Your task to perform on an android device: turn notification dots off Image 0: 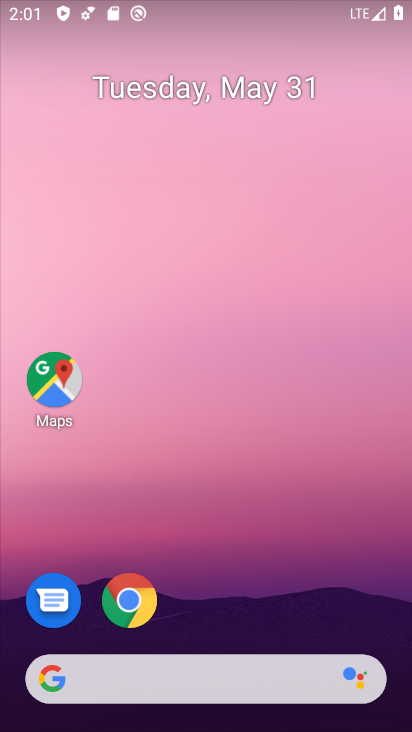
Step 0: drag from (212, 626) to (227, 88)
Your task to perform on an android device: turn notification dots off Image 1: 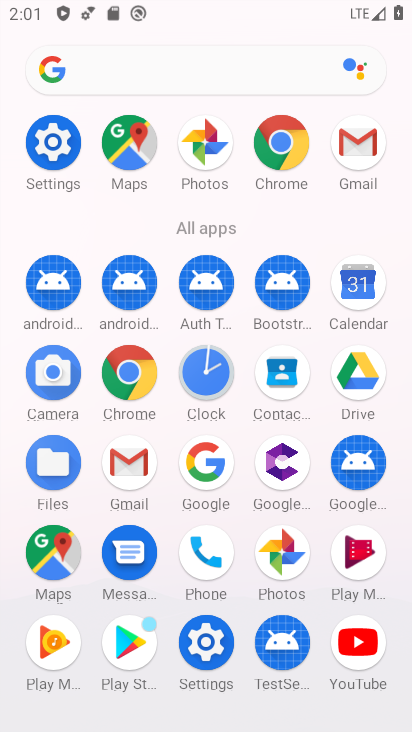
Step 1: click (203, 639)
Your task to perform on an android device: turn notification dots off Image 2: 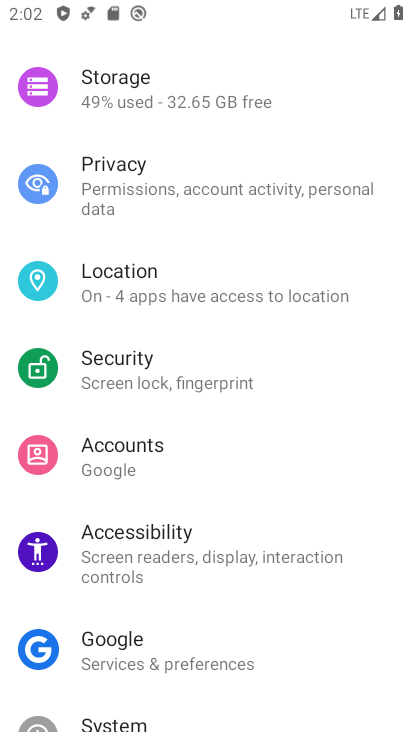
Step 2: drag from (175, 99) to (226, 714)
Your task to perform on an android device: turn notification dots off Image 3: 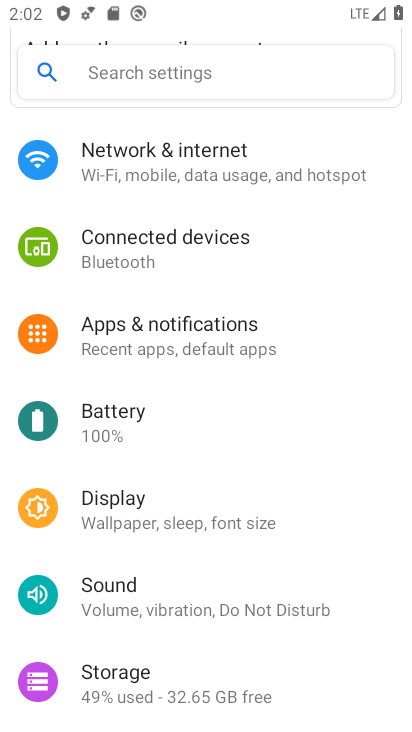
Step 3: click (247, 330)
Your task to perform on an android device: turn notification dots off Image 4: 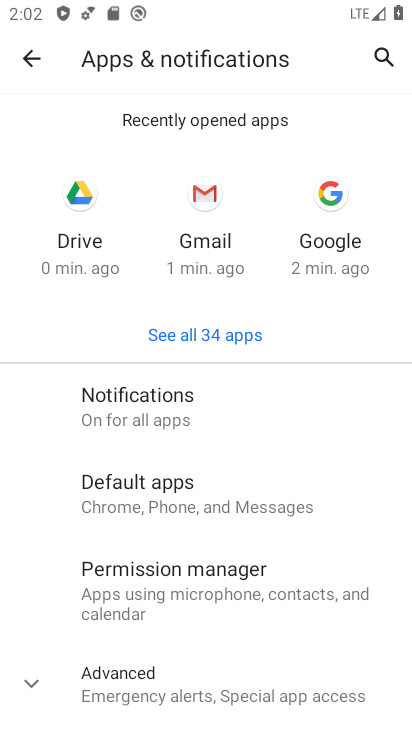
Step 4: click (202, 403)
Your task to perform on an android device: turn notification dots off Image 5: 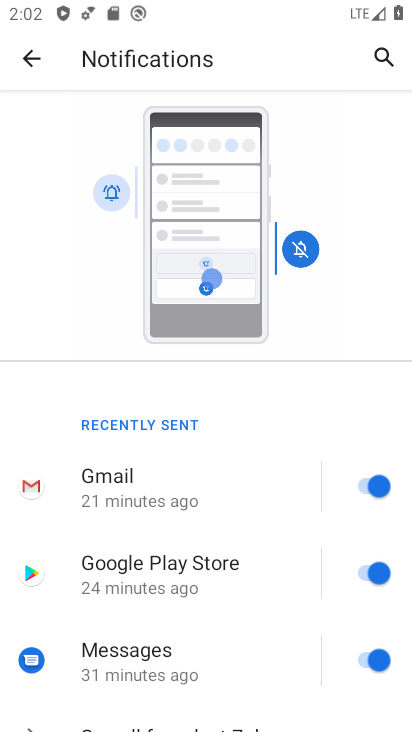
Step 5: drag from (244, 673) to (250, 81)
Your task to perform on an android device: turn notification dots off Image 6: 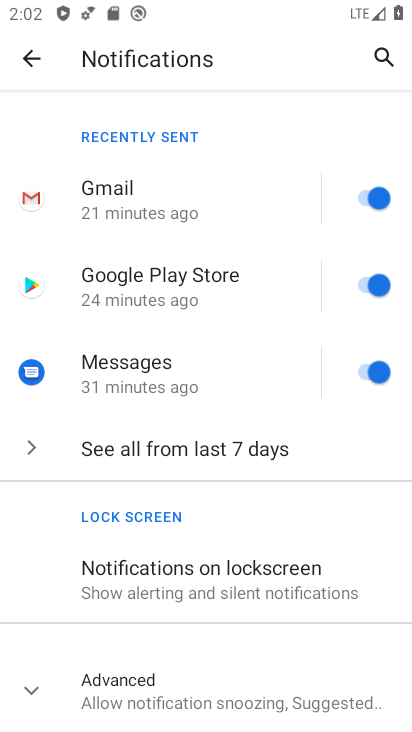
Step 6: click (44, 695)
Your task to perform on an android device: turn notification dots off Image 7: 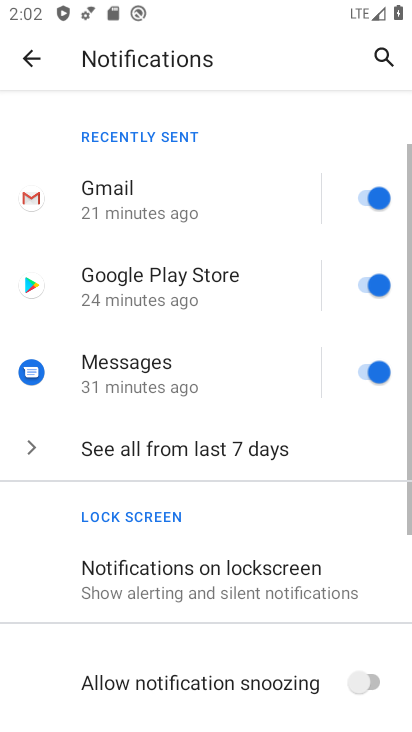
Step 7: drag from (219, 683) to (247, 117)
Your task to perform on an android device: turn notification dots off Image 8: 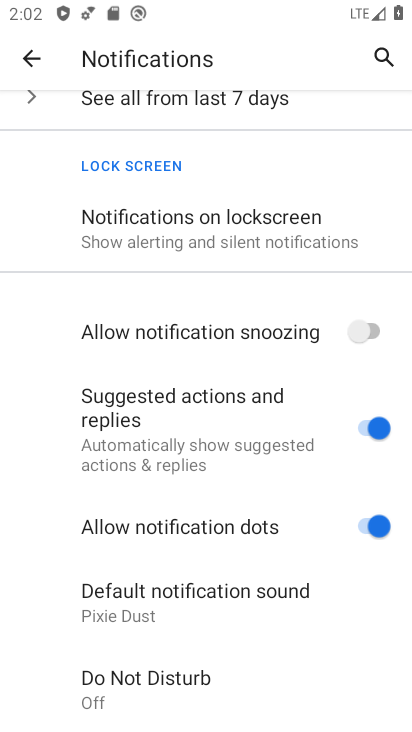
Step 8: click (361, 524)
Your task to perform on an android device: turn notification dots off Image 9: 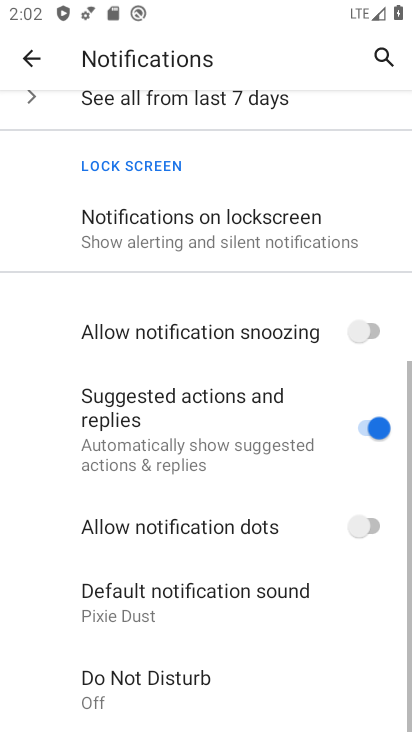
Step 9: task complete